Your task to perform on an android device: Go to Amazon Image 0: 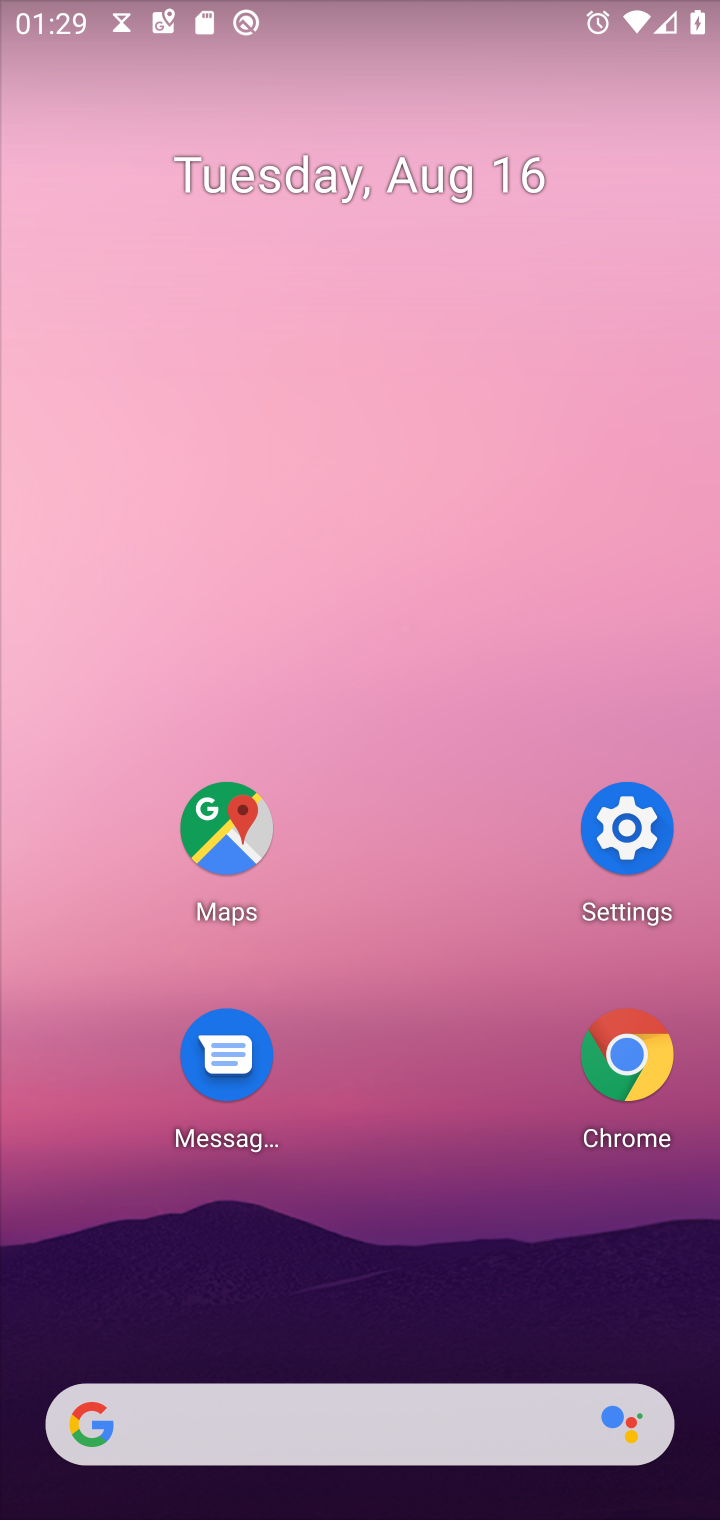
Step 0: press home button
Your task to perform on an android device: Go to Amazon Image 1: 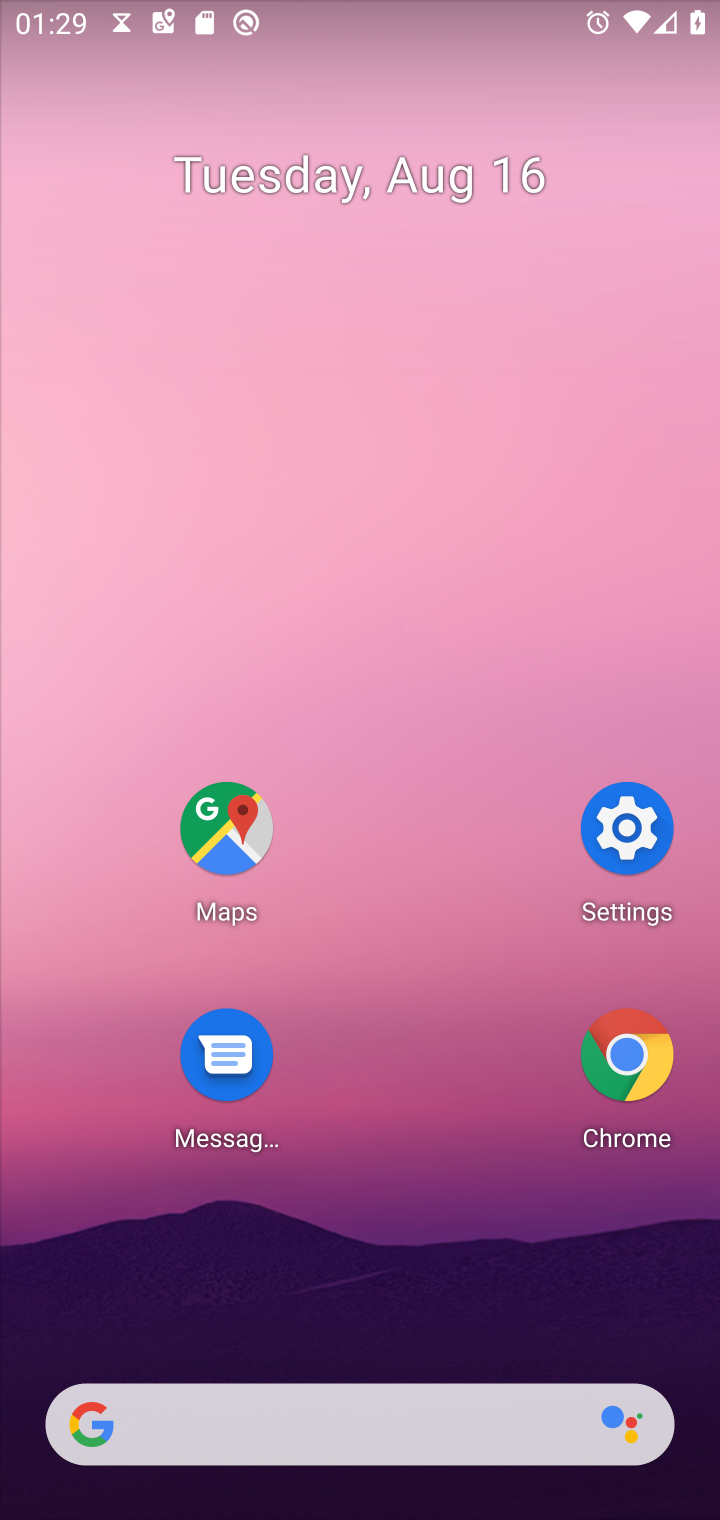
Step 1: click (627, 1061)
Your task to perform on an android device: Go to Amazon Image 2: 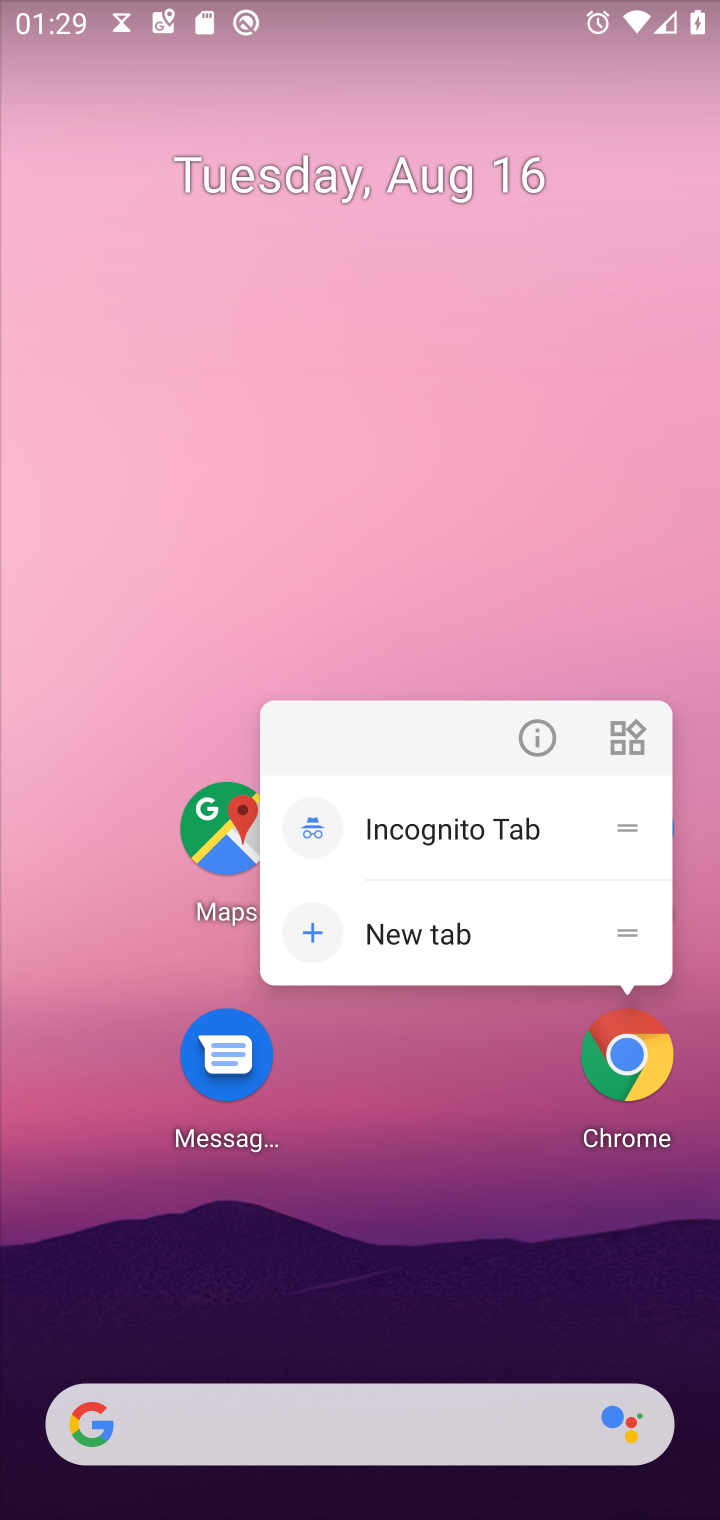
Step 2: click (627, 1061)
Your task to perform on an android device: Go to Amazon Image 3: 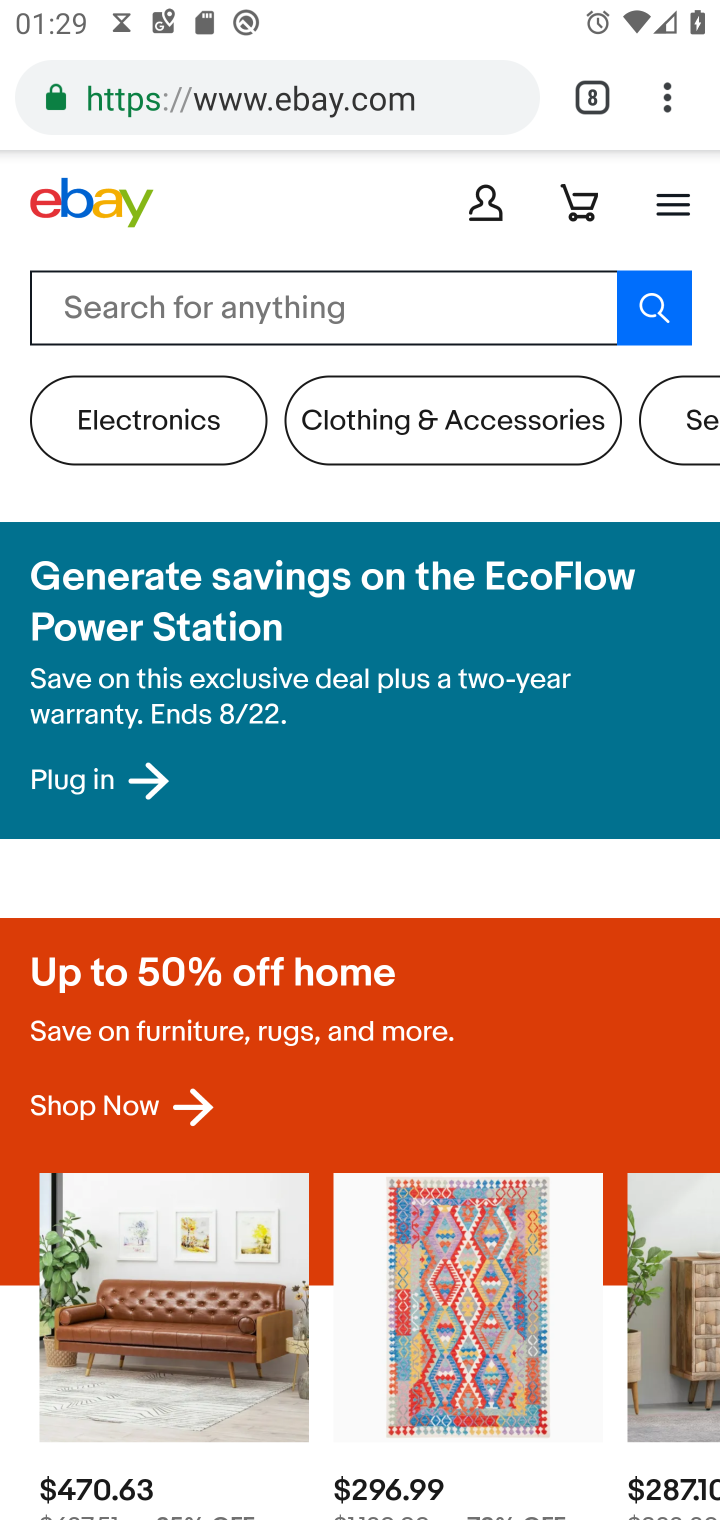
Step 3: drag from (658, 93) to (413, 191)
Your task to perform on an android device: Go to Amazon Image 4: 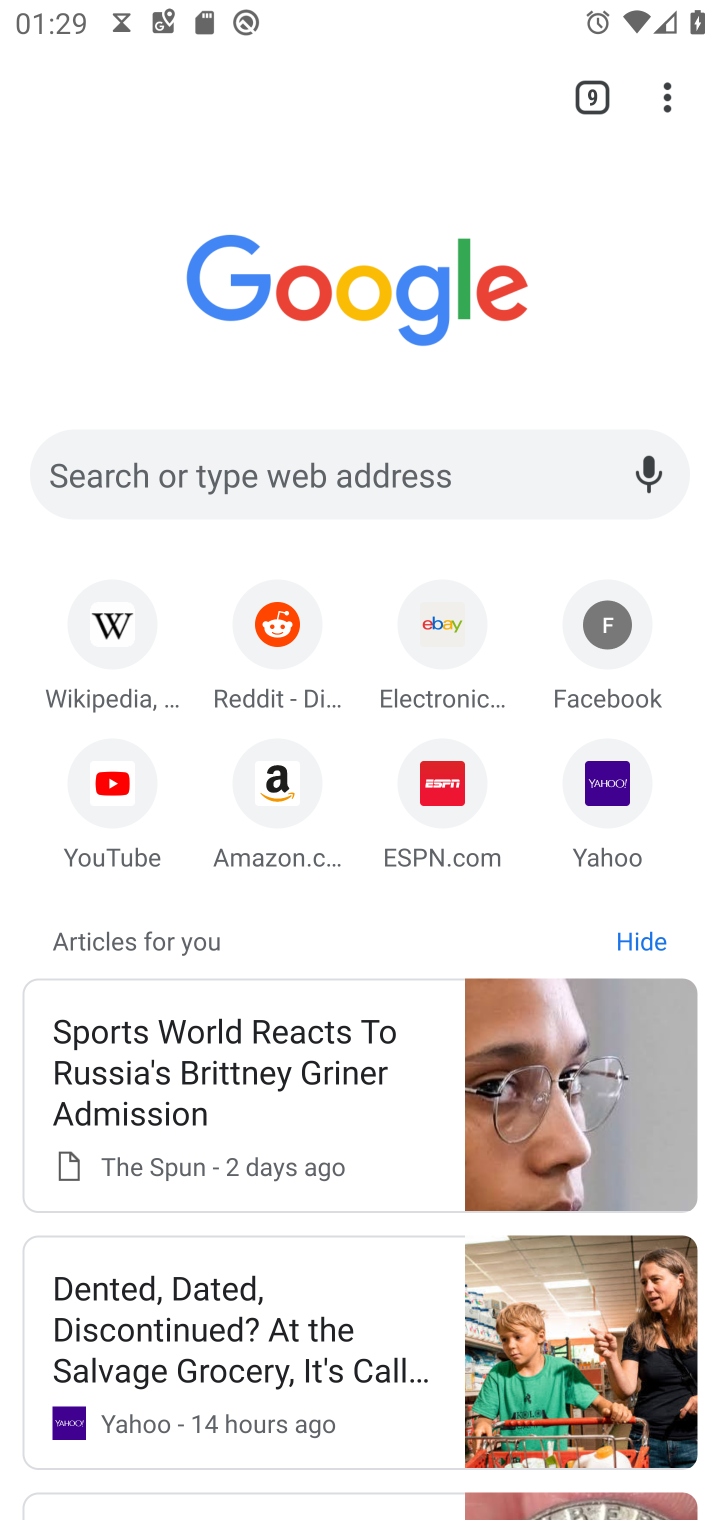
Step 4: click (275, 779)
Your task to perform on an android device: Go to Amazon Image 5: 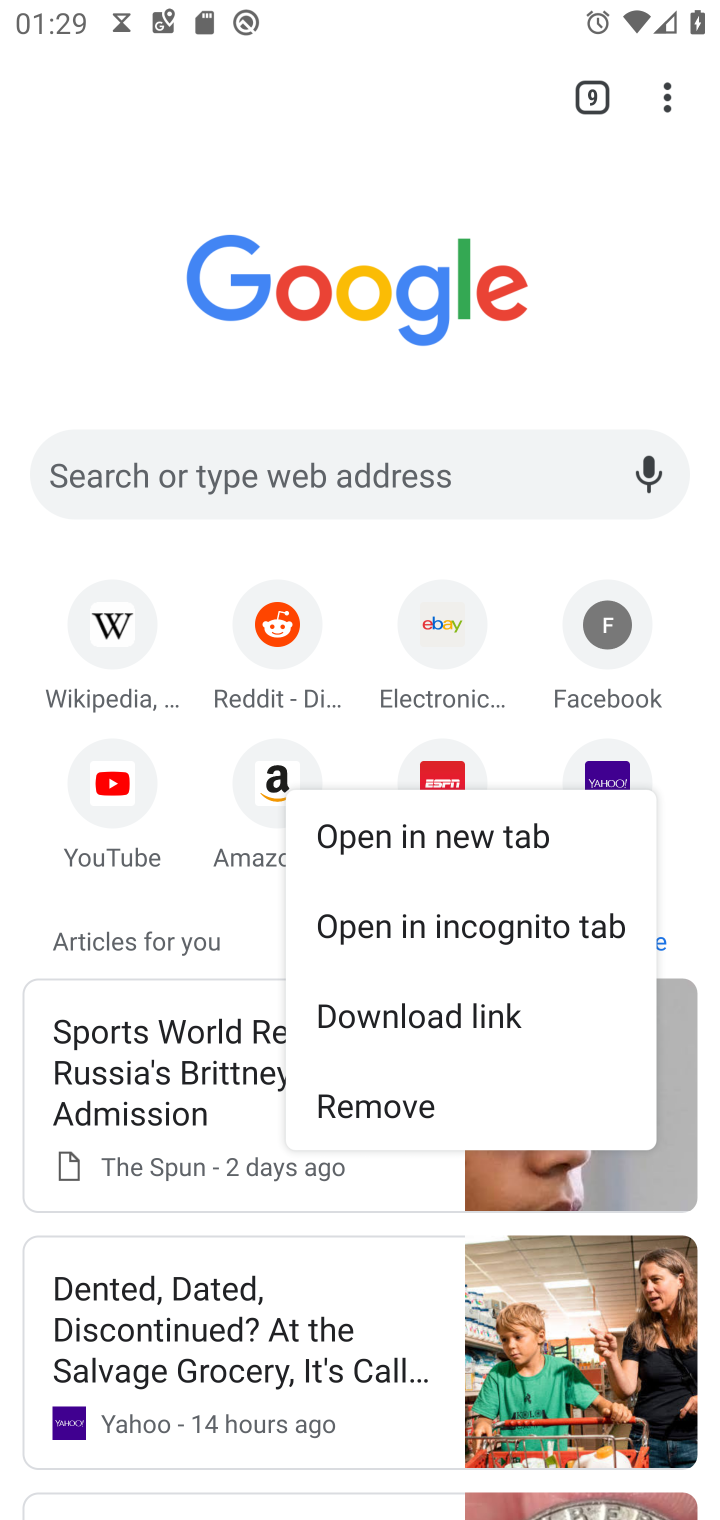
Step 5: click (275, 781)
Your task to perform on an android device: Go to Amazon Image 6: 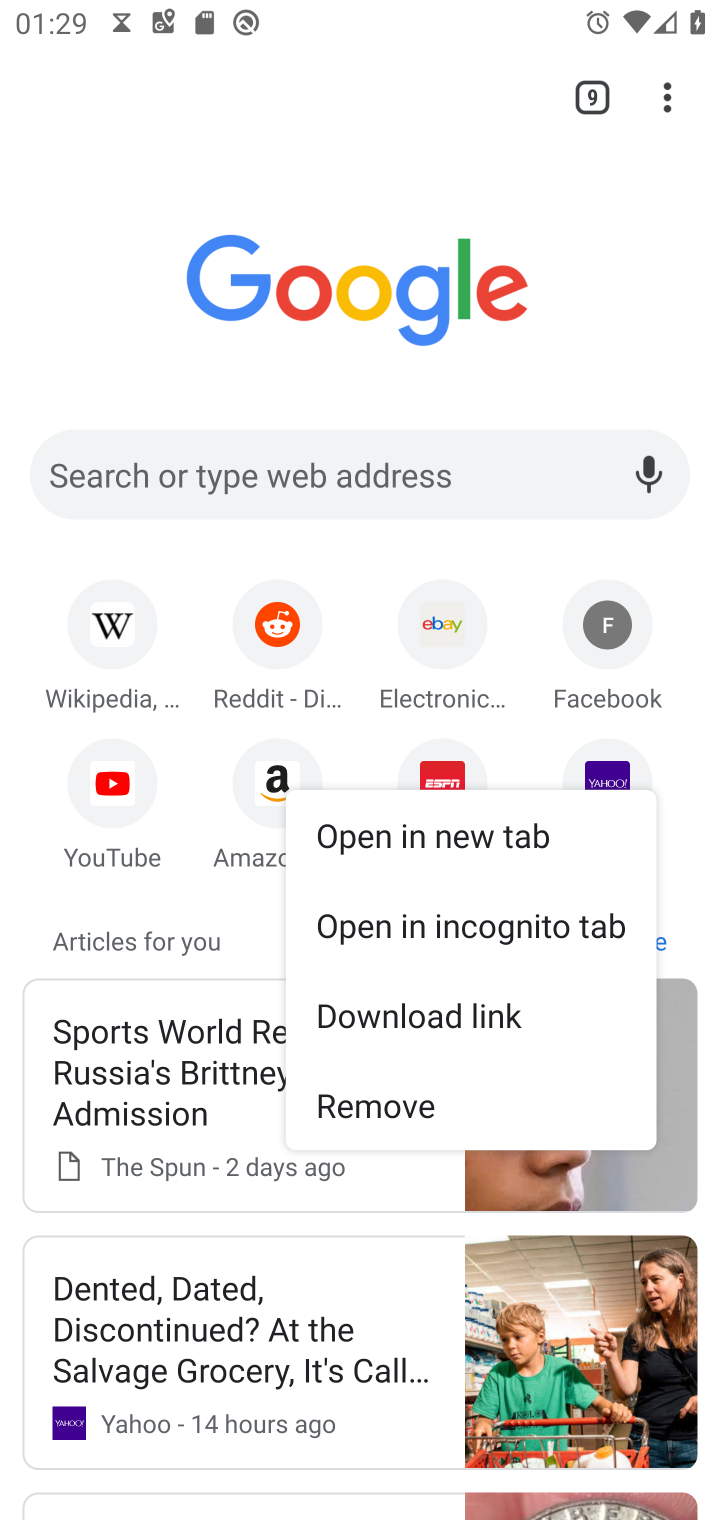
Step 6: click (275, 777)
Your task to perform on an android device: Go to Amazon Image 7: 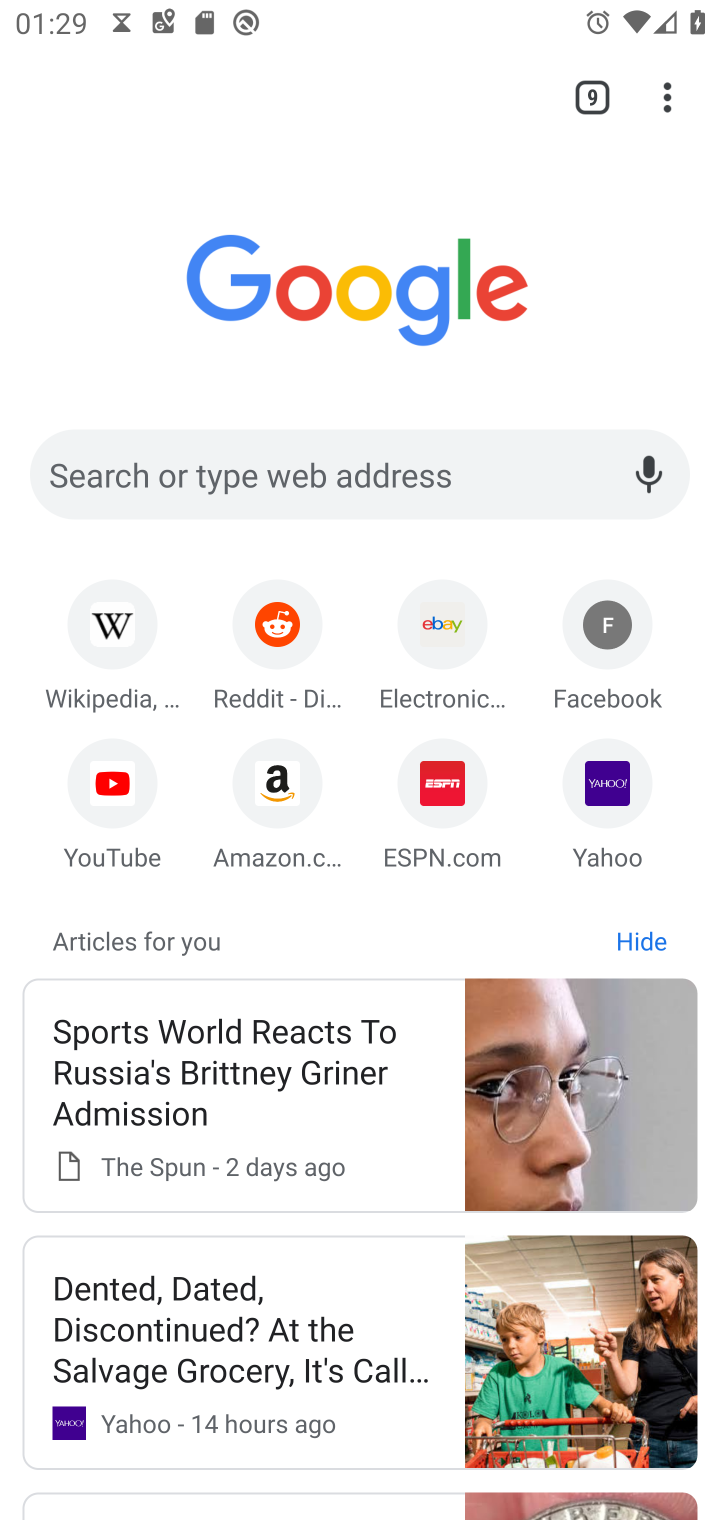
Step 7: click (275, 781)
Your task to perform on an android device: Go to Amazon Image 8: 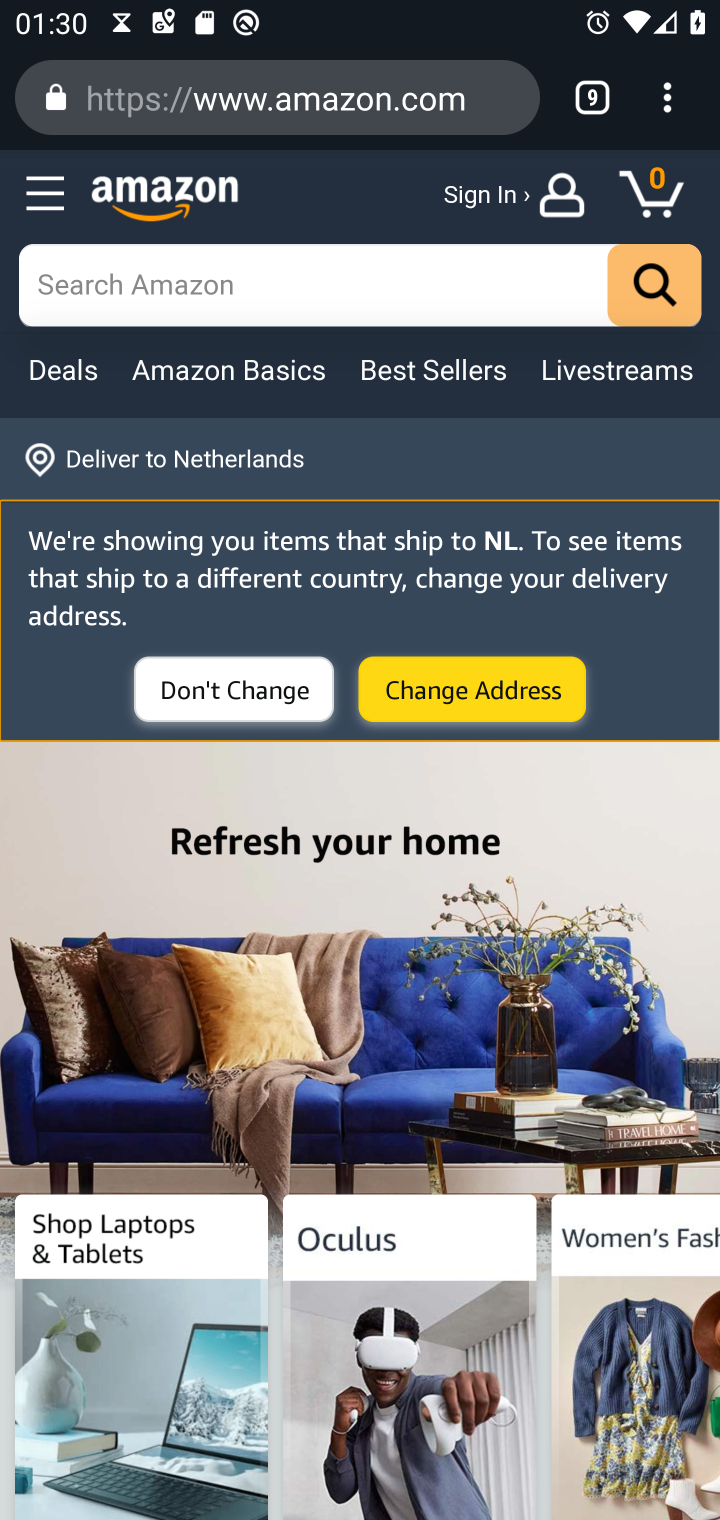
Step 8: task complete